Your task to perform on an android device: Search for pizza restaurants on Maps Image 0: 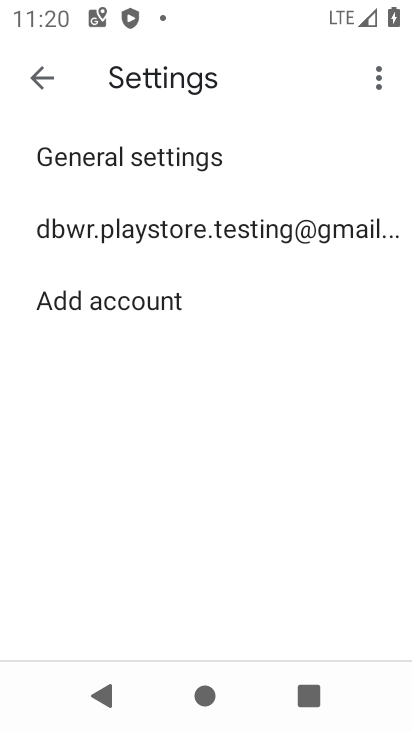
Step 0: press home button
Your task to perform on an android device: Search for pizza restaurants on Maps Image 1: 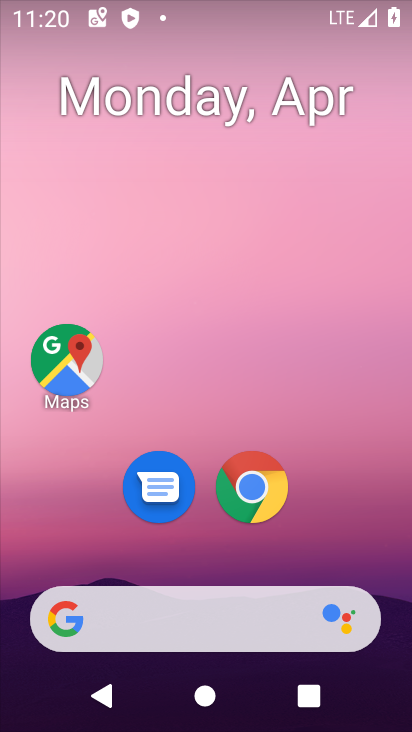
Step 1: drag from (398, 581) to (315, 148)
Your task to perform on an android device: Search for pizza restaurants on Maps Image 2: 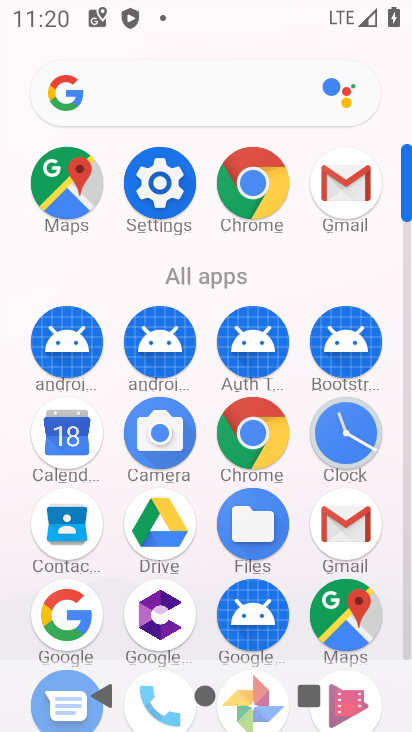
Step 2: click (344, 614)
Your task to perform on an android device: Search for pizza restaurants on Maps Image 3: 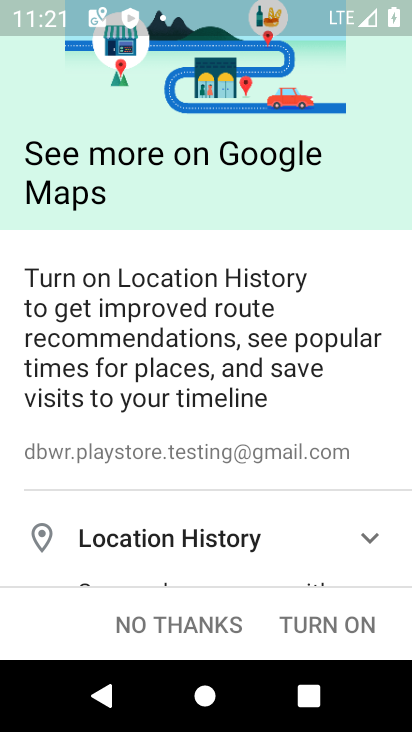
Step 3: drag from (269, 570) to (280, 231)
Your task to perform on an android device: Search for pizza restaurants on Maps Image 4: 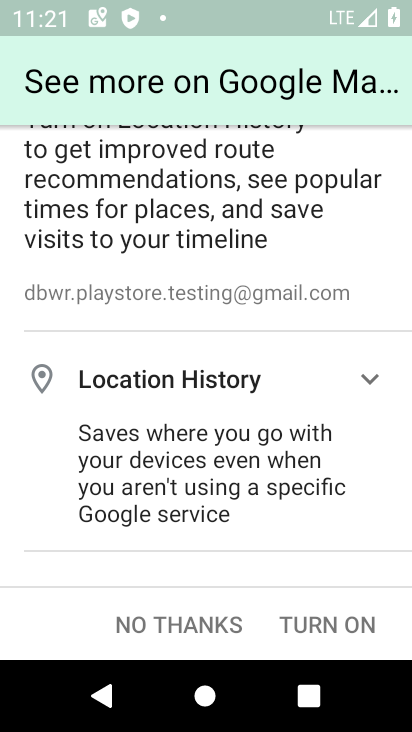
Step 4: drag from (292, 465) to (272, 124)
Your task to perform on an android device: Search for pizza restaurants on Maps Image 5: 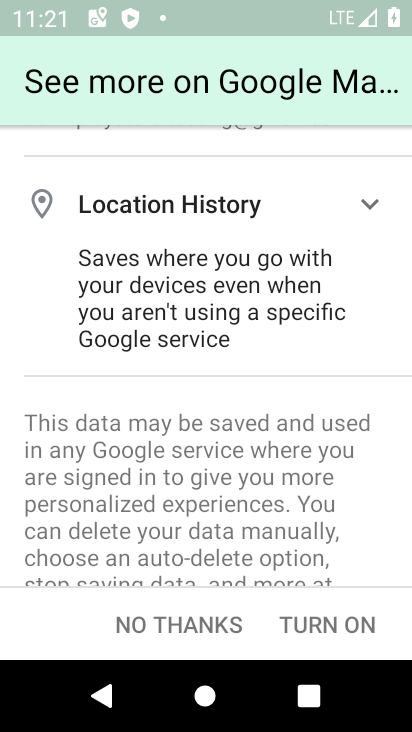
Step 5: drag from (270, 475) to (243, 106)
Your task to perform on an android device: Search for pizza restaurants on Maps Image 6: 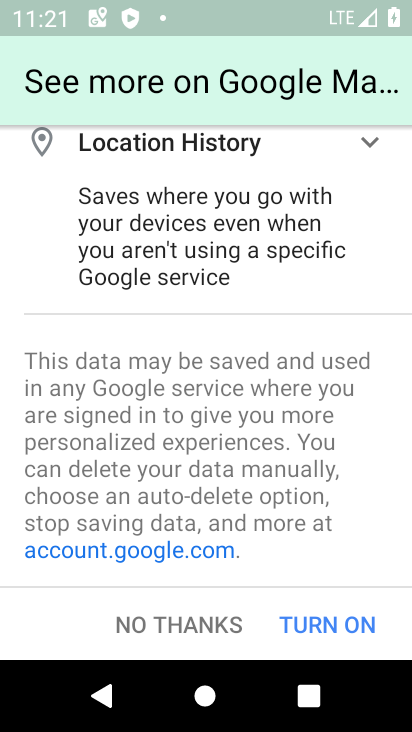
Step 6: click (196, 619)
Your task to perform on an android device: Search for pizza restaurants on Maps Image 7: 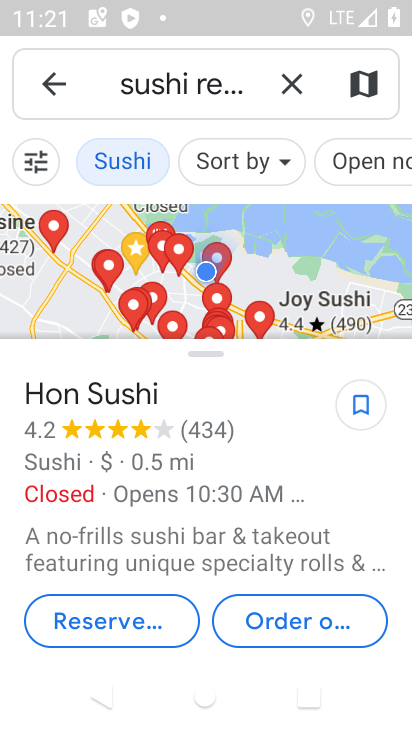
Step 7: click (302, 77)
Your task to perform on an android device: Search for pizza restaurants on Maps Image 8: 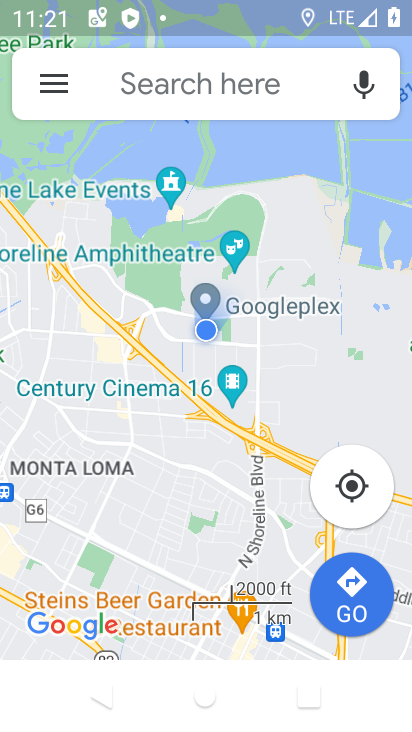
Step 8: click (206, 82)
Your task to perform on an android device: Search for pizza restaurants on Maps Image 9: 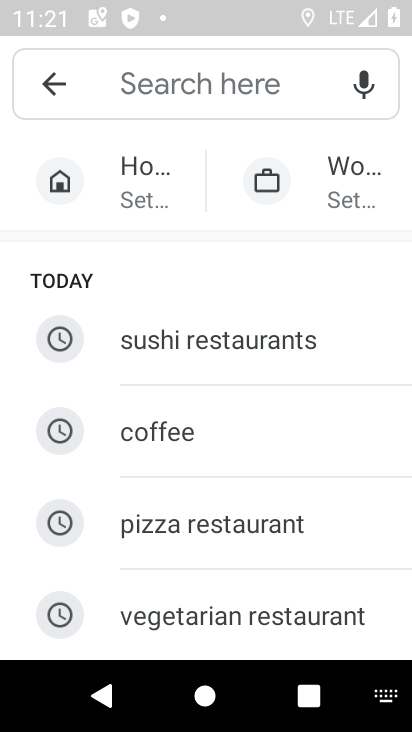
Step 9: click (302, 533)
Your task to perform on an android device: Search for pizza restaurants on Maps Image 10: 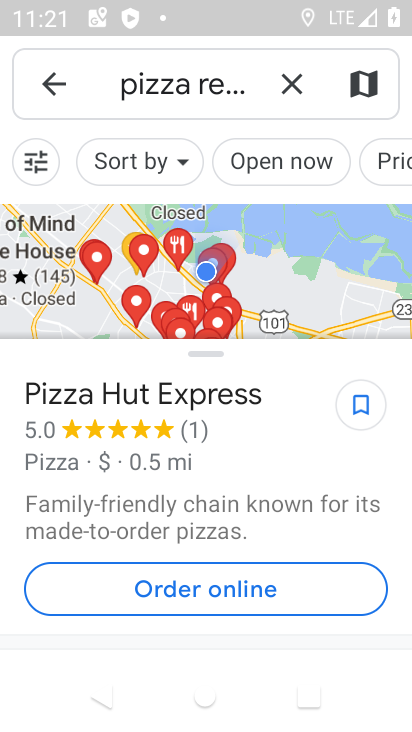
Step 10: task complete